Your task to perform on an android device: Clear the cart on walmart. Add macbook pro to the cart on walmart, then select checkout. Image 0: 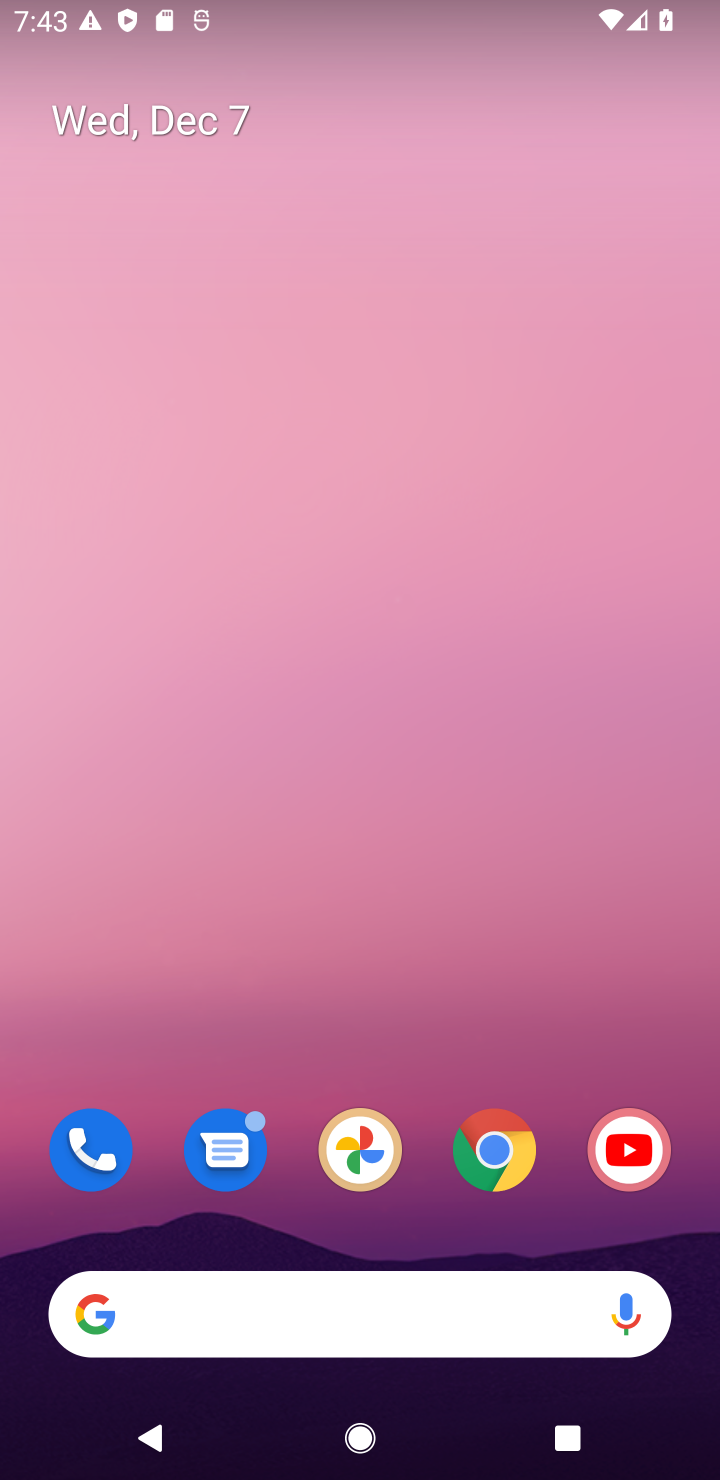
Step 0: click (503, 1143)
Your task to perform on an android device: Clear the cart on walmart. Add macbook pro to the cart on walmart, then select checkout. Image 1: 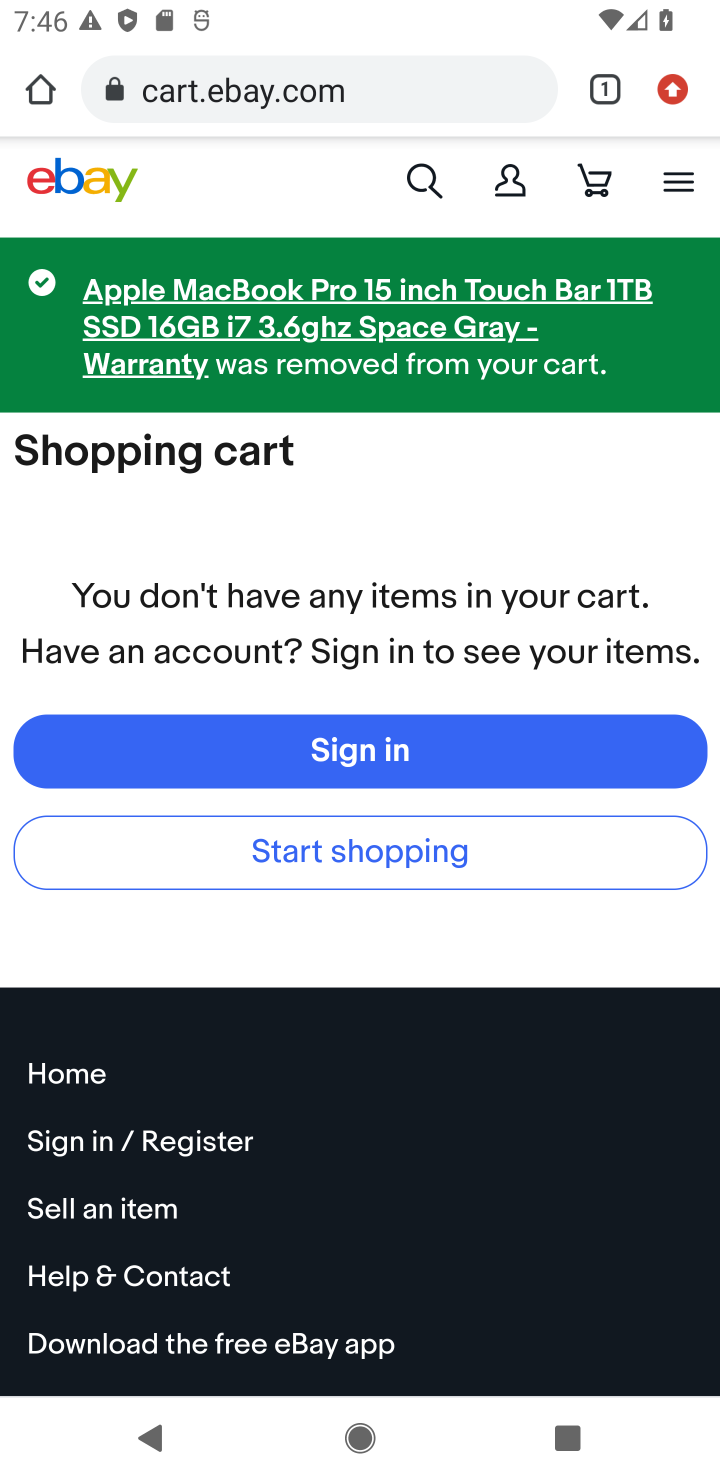
Step 1: press home button
Your task to perform on an android device: Clear the cart on walmart. Add macbook pro to the cart on walmart, then select checkout. Image 2: 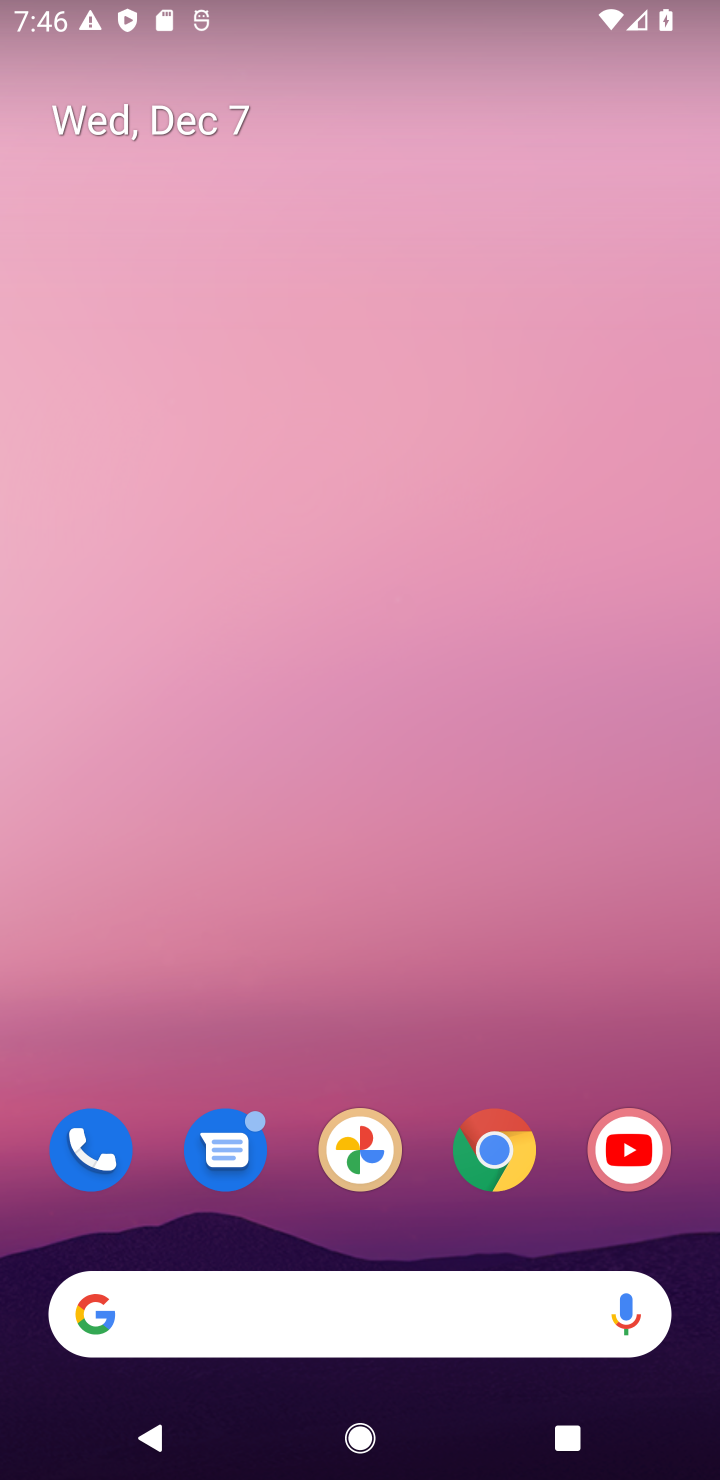
Step 2: click (504, 1139)
Your task to perform on an android device: Clear the cart on walmart. Add macbook pro to the cart on walmart, then select checkout. Image 3: 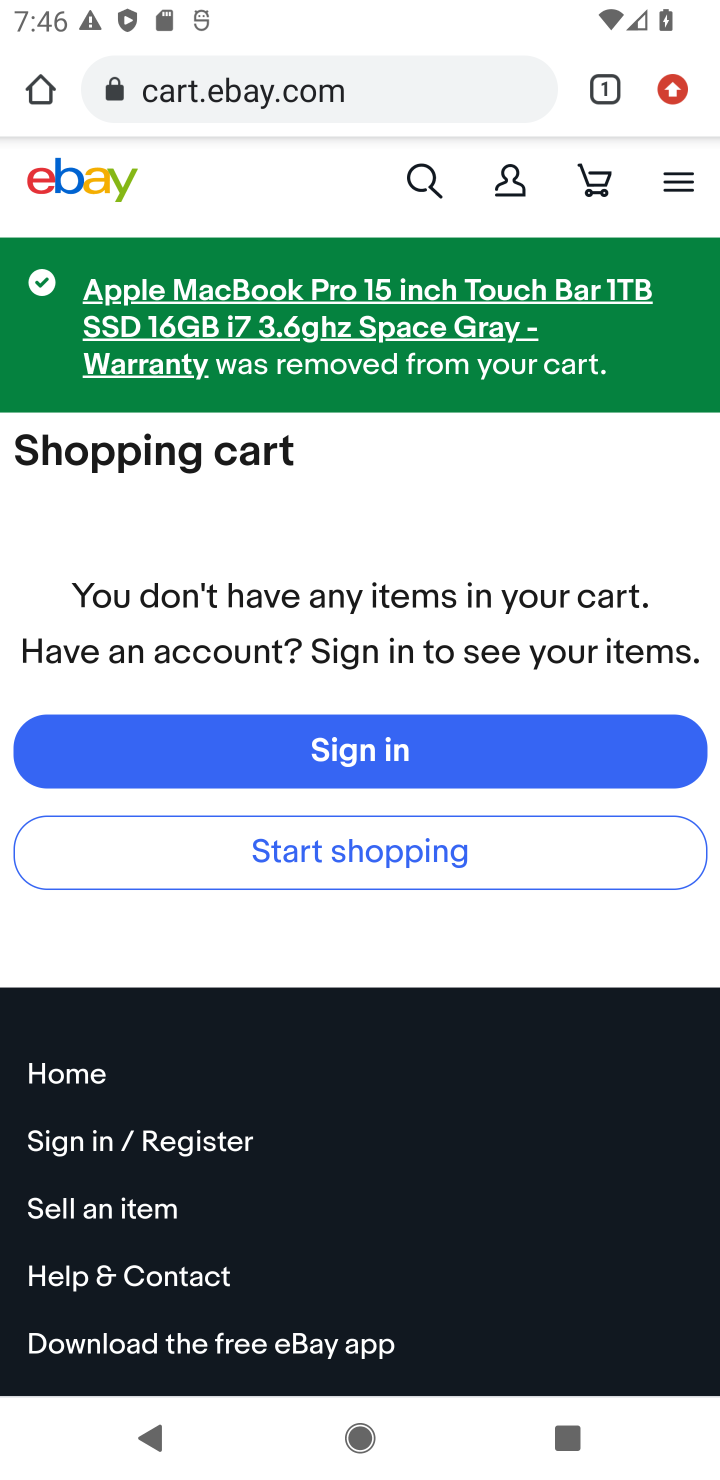
Step 3: click (244, 90)
Your task to perform on an android device: Clear the cart on walmart. Add macbook pro to the cart on walmart, then select checkout. Image 4: 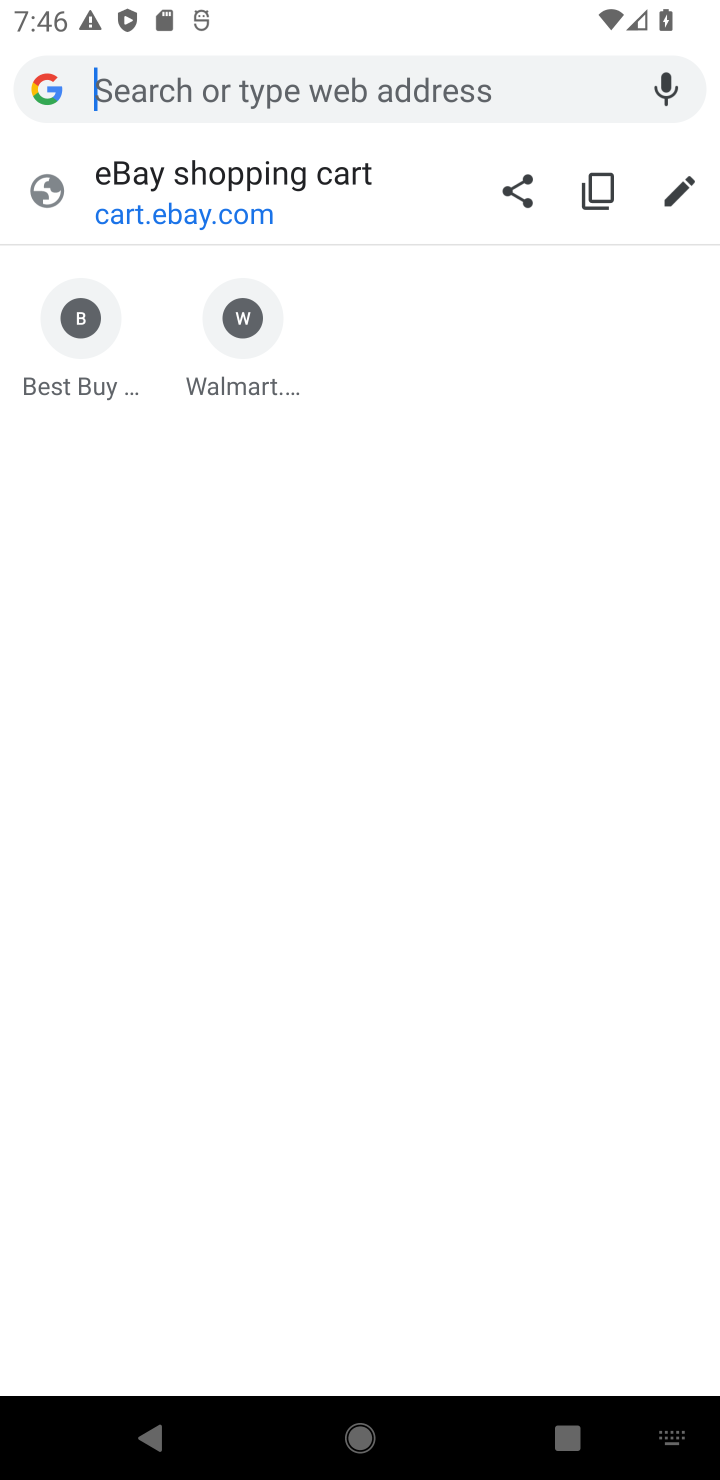
Step 4: click (238, 321)
Your task to perform on an android device: Clear the cart on walmart. Add macbook pro to the cart on walmart, then select checkout. Image 5: 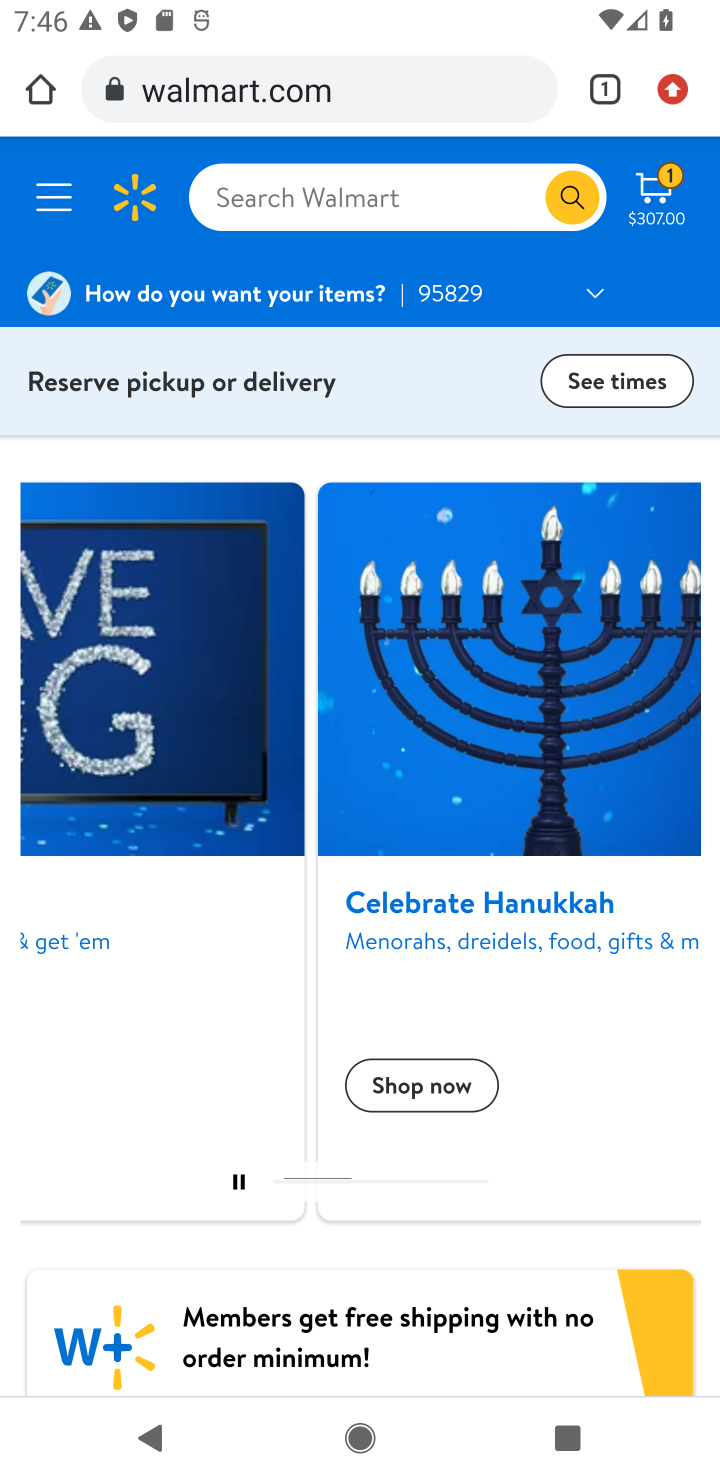
Step 5: click (476, 191)
Your task to perform on an android device: Clear the cart on walmart. Add macbook pro to the cart on walmart, then select checkout. Image 6: 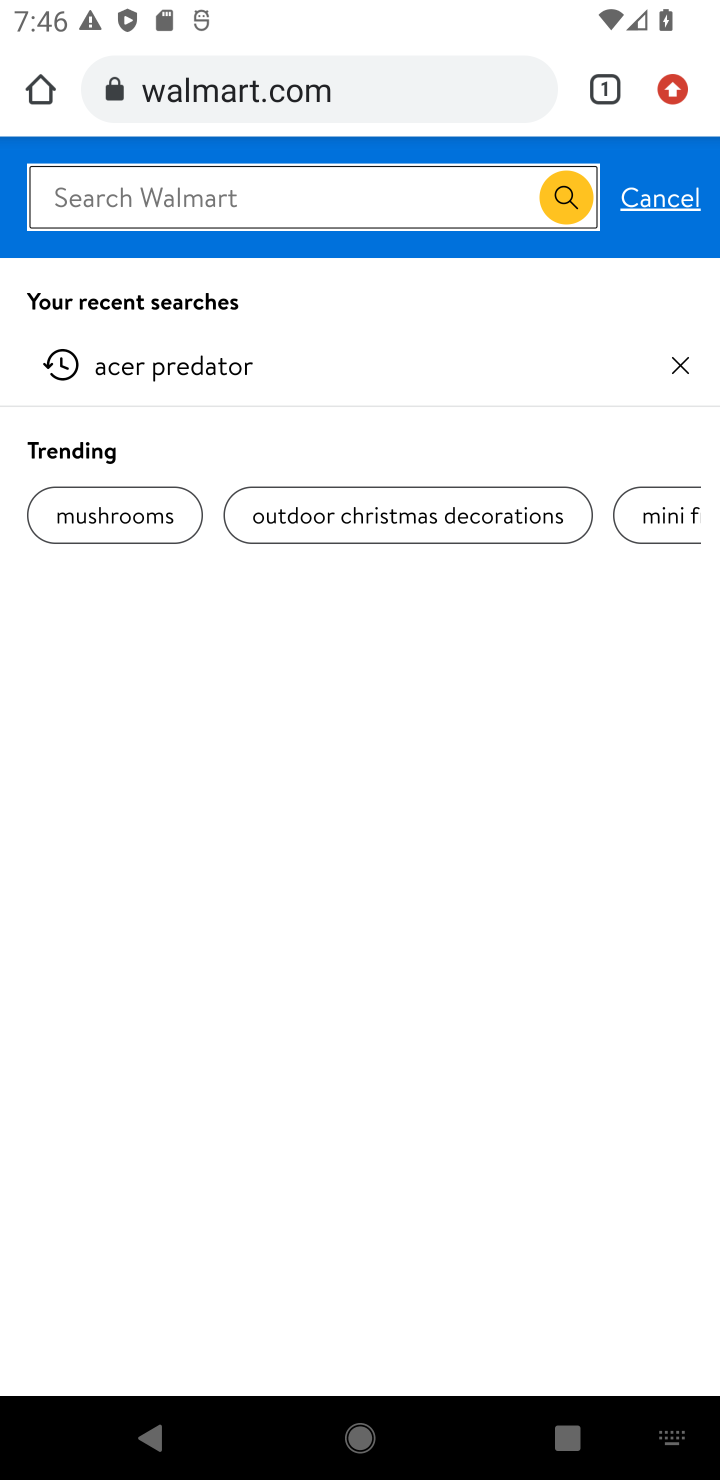
Step 6: type "macbook pro "
Your task to perform on an android device: Clear the cart on walmart. Add macbook pro to the cart on walmart, then select checkout. Image 7: 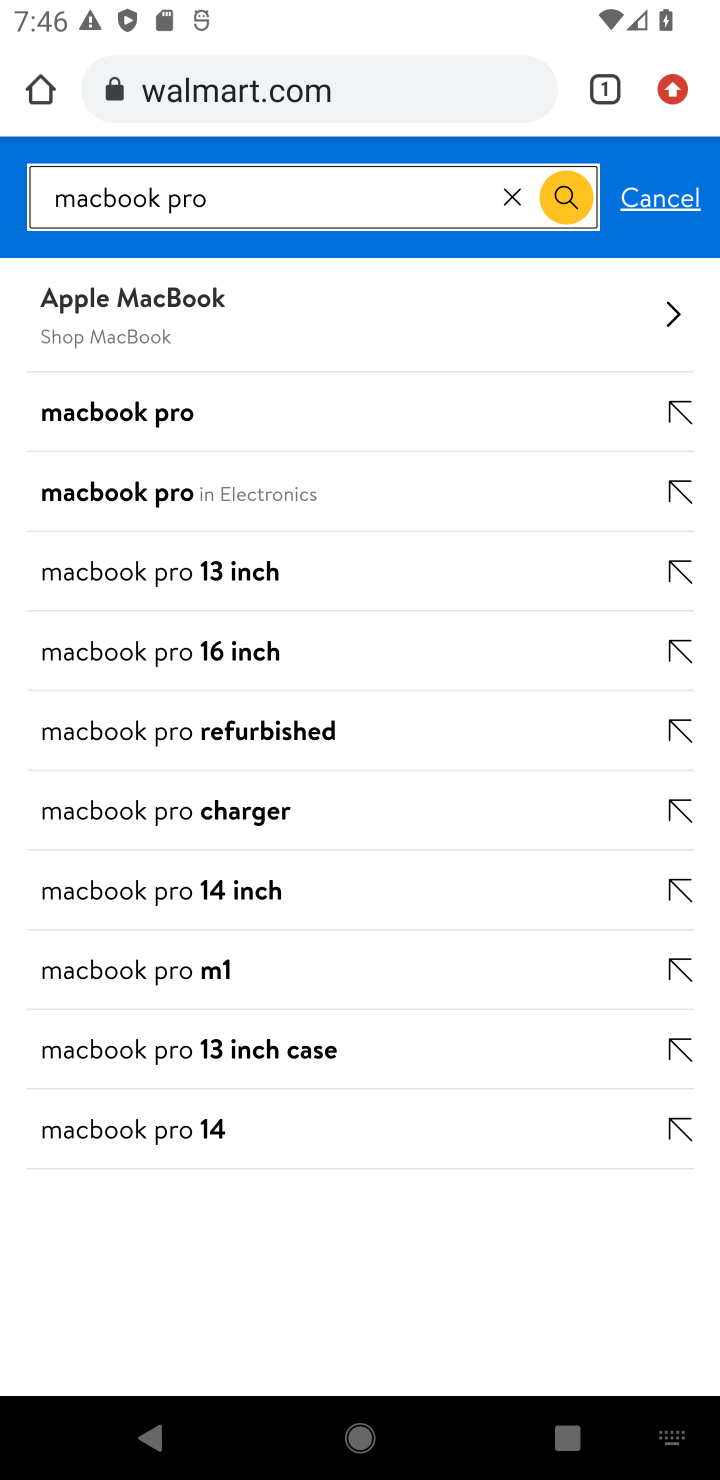
Step 7: click (179, 298)
Your task to perform on an android device: Clear the cart on walmart. Add macbook pro to the cart on walmart, then select checkout. Image 8: 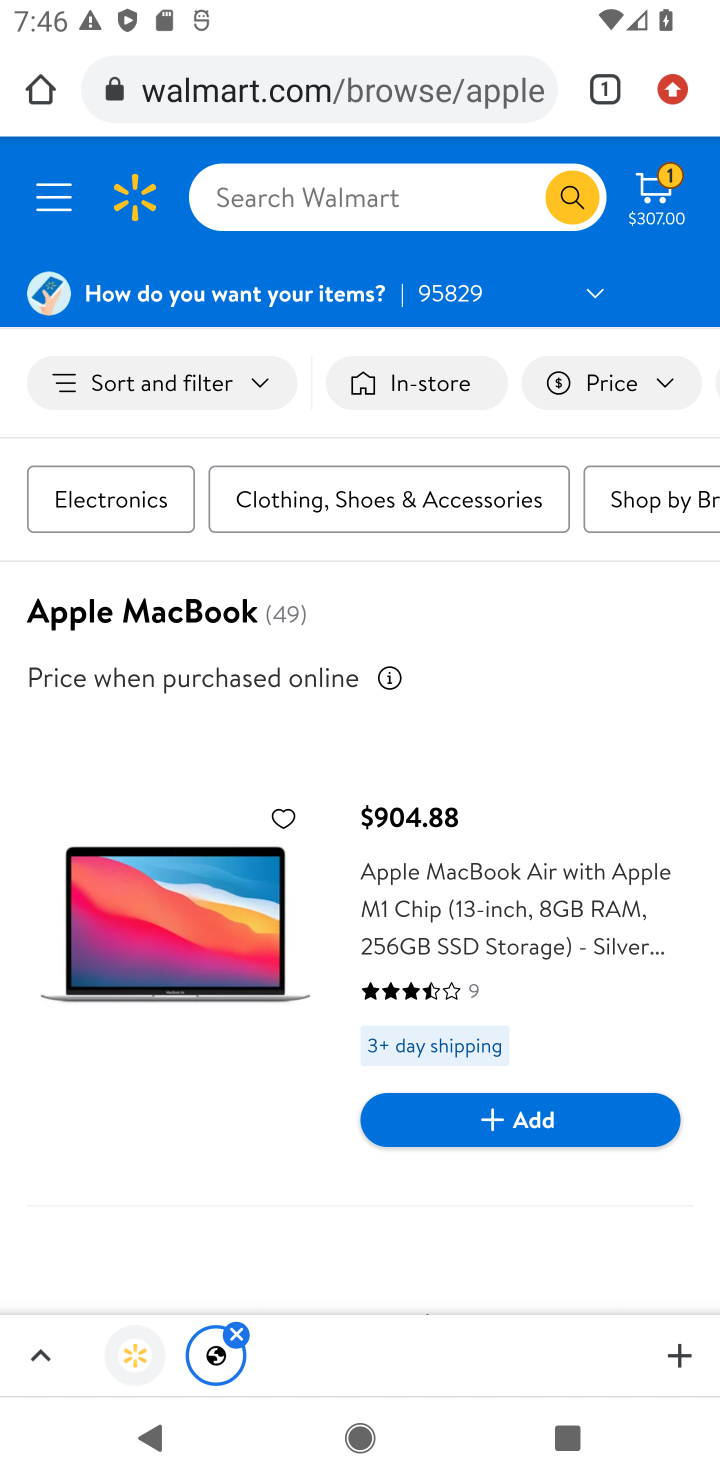
Step 8: click (523, 1113)
Your task to perform on an android device: Clear the cart on walmart. Add macbook pro to the cart on walmart, then select checkout. Image 9: 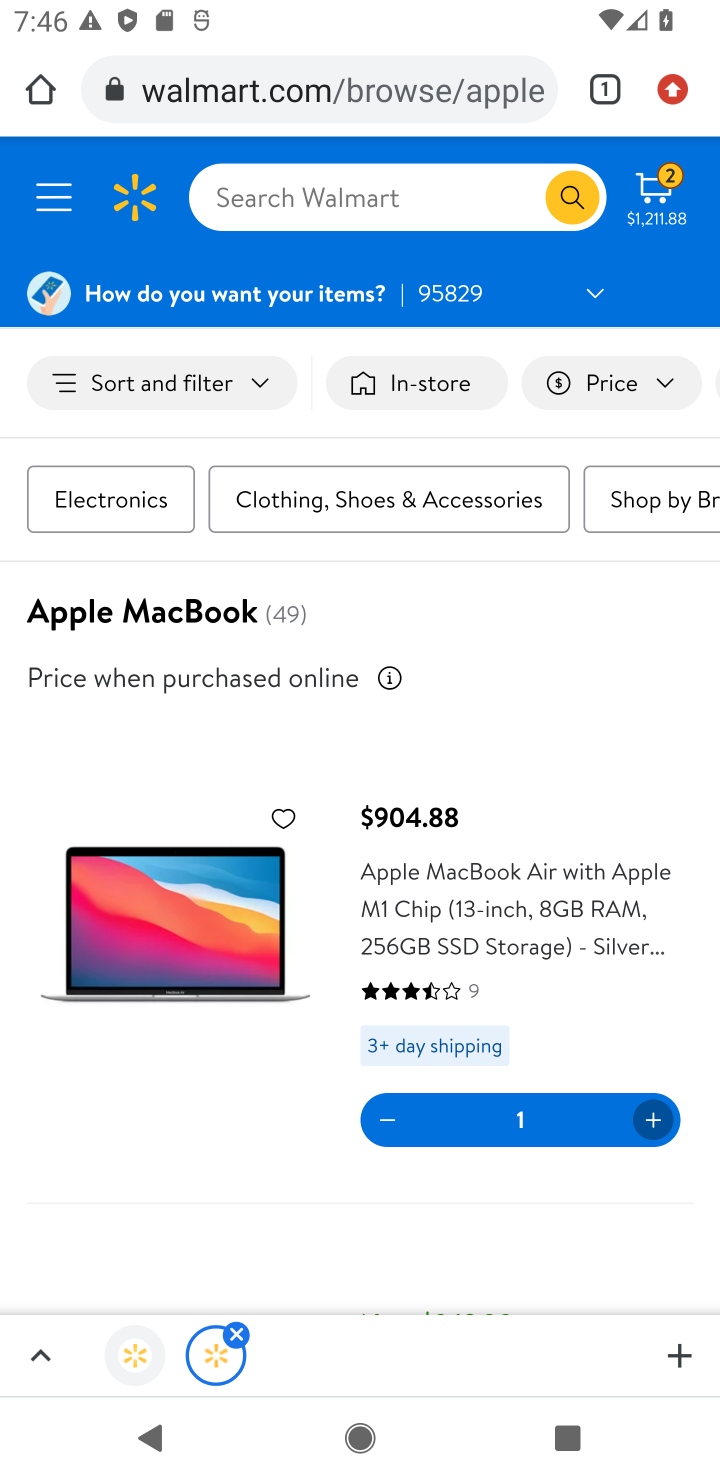
Step 9: click (657, 195)
Your task to perform on an android device: Clear the cart on walmart. Add macbook pro to the cart on walmart, then select checkout. Image 10: 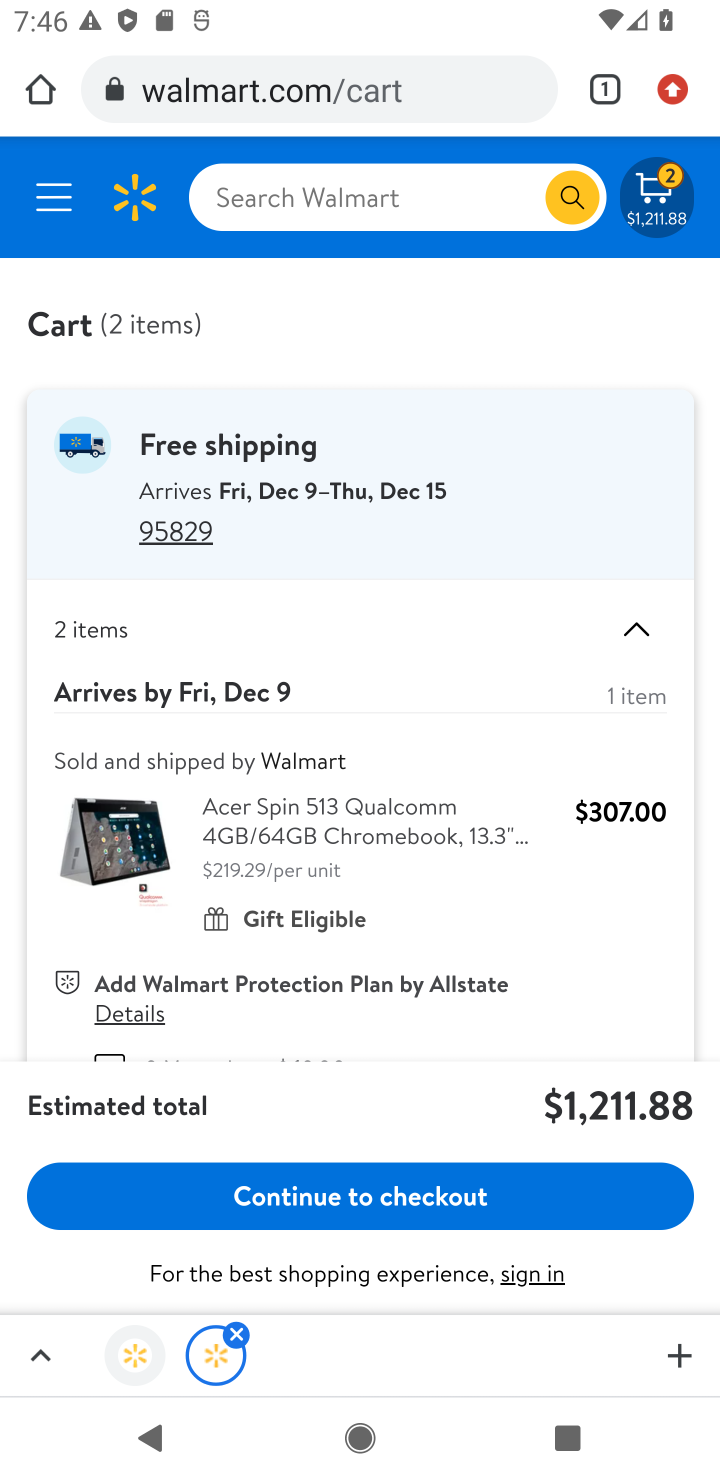
Step 10: click (419, 1187)
Your task to perform on an android device: Clear the cart on walmart. Add macbook pro to the cart on walmart, then select checkout. Image 11: 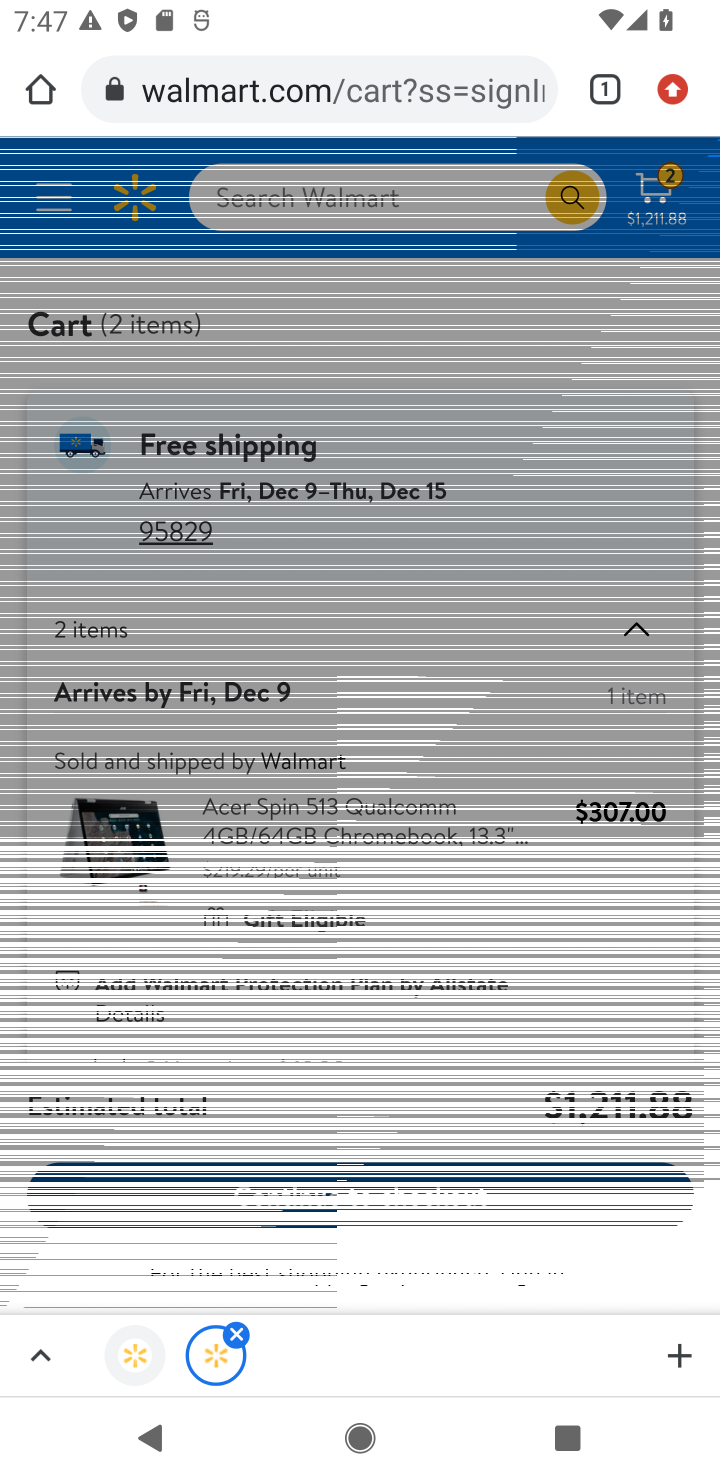
Step 11: task complete